Your task to perform on an android device: remove spam from my inbox in the gmail app Image 0: 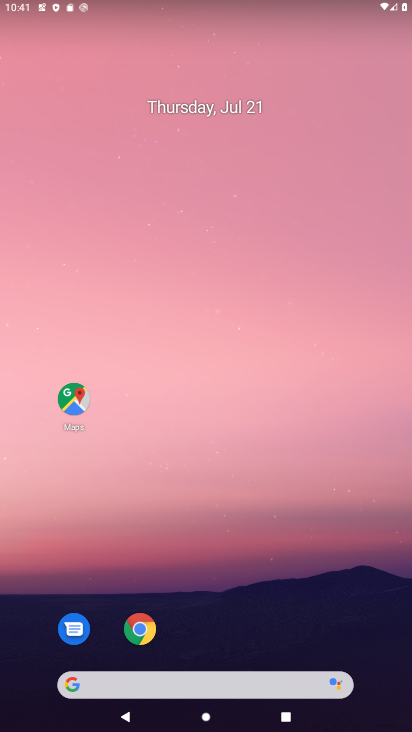
Step 0: drag from (232, 544) to (256, 140)
Your task to perform on an android device: remove spam from my inbox in the gmail app Image 1: 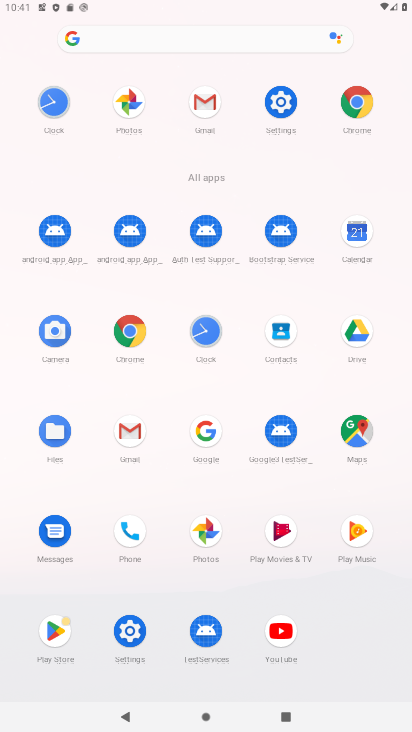
Step 1: click (128, 437)
Your task to perform on an android device: remove spam from my inbox in the gmail app Image 2: 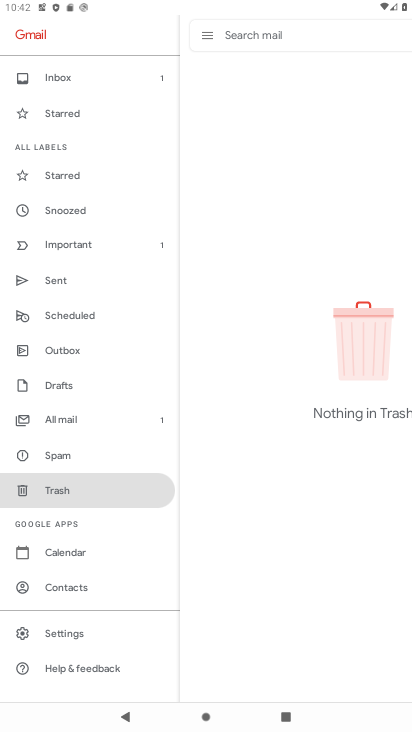
Step 2: click (44, 447)
Your task to perform on an android device: remove spam from my inbox in the gmail app Image 3: 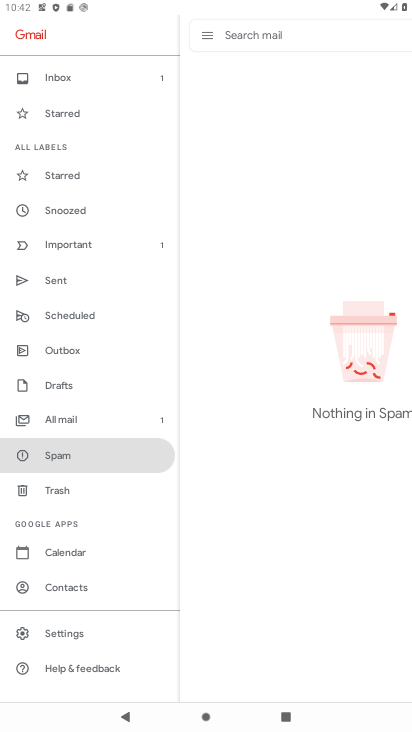
Step 3: task complete